Your task to perform on an android device: change alarm snooze length Image 0: 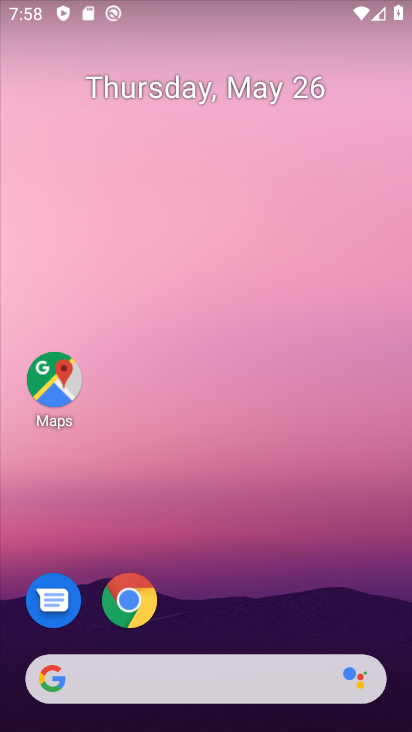
Step 0: task complete